Your task to perform on an android device: What's the weather today? Image 0: 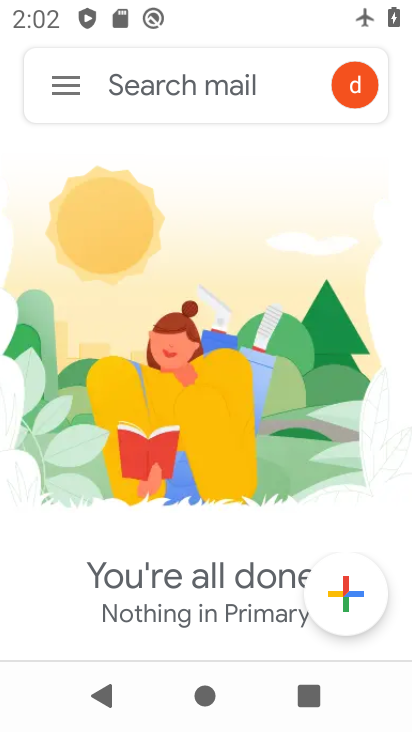
Step 0: press home button
Your task to perform on an android device: What's the weather today? Image 1: 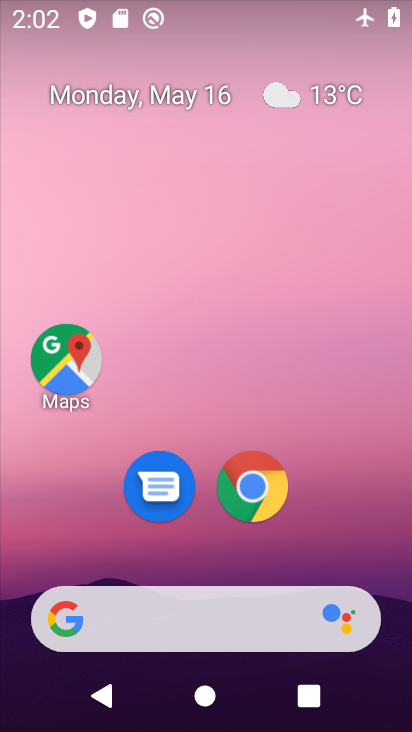
Step 1: drag from (361, 480) to (308, 250)
Your task to perform on an android device: What's the weather today? Image 2: 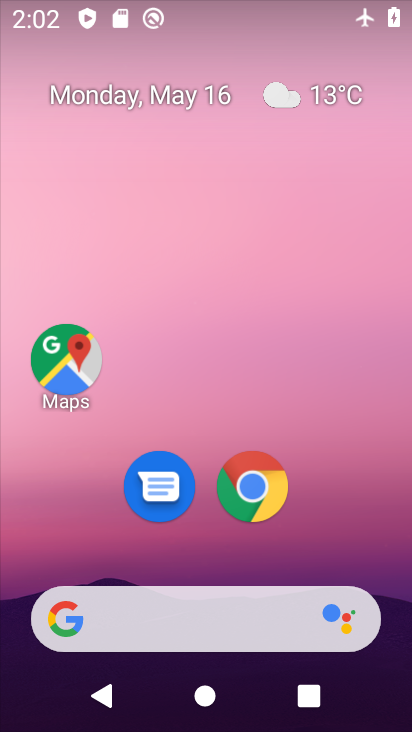
Step 2: click (285, 77)
Your task to perform on an android device: What's the weather today? Image 3: 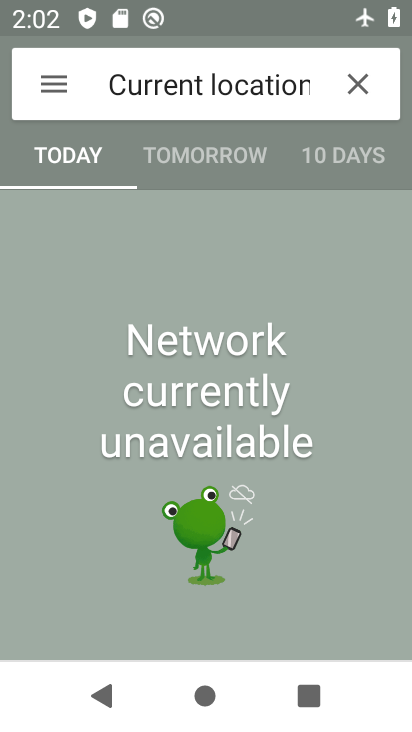
Step 3: task complete